Your task to perform on an android device: change the clock display to digital Image 0: 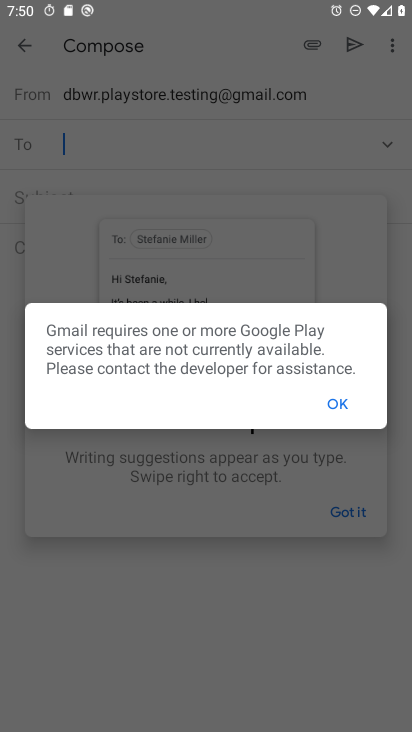
Step 0: press home button
Your task to perform on an android device: change the clock display to digital Image 1: 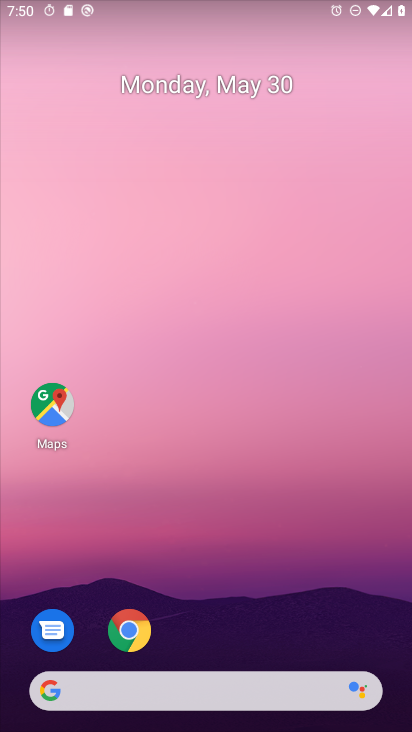
Step 1: drag from (343, 649) to (310, 333)
Your task to perform on an android device: change the clock display to digital Image 2: 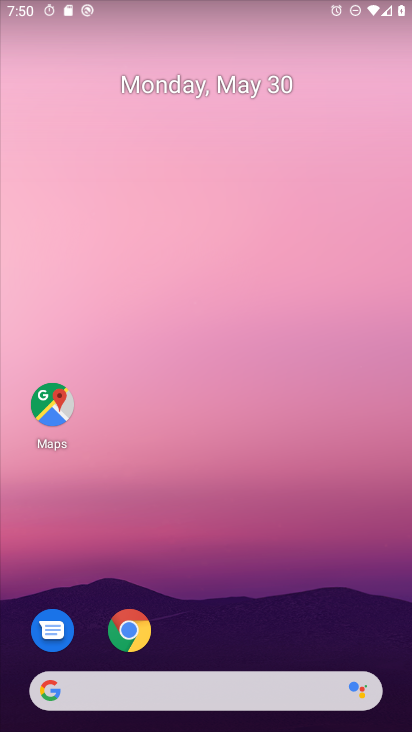
Step 2: drag from (329, 516) to (257, 137)
Your task to perform on an android device: change the clock display to digital Image 3: 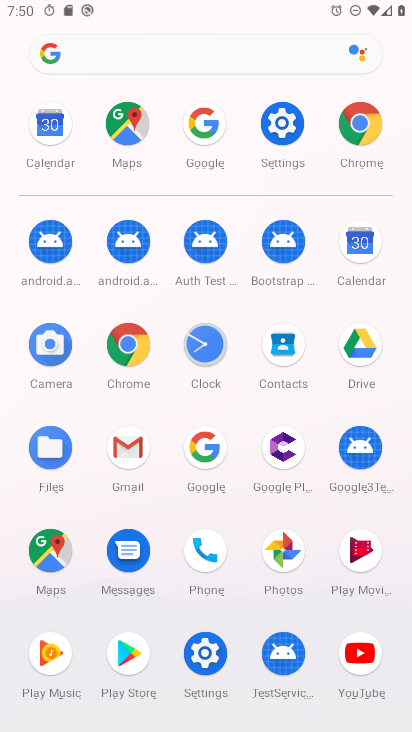
Step 3: click (218, 335)
Your task to perform on an android device: change the clock display to digital Image 4: 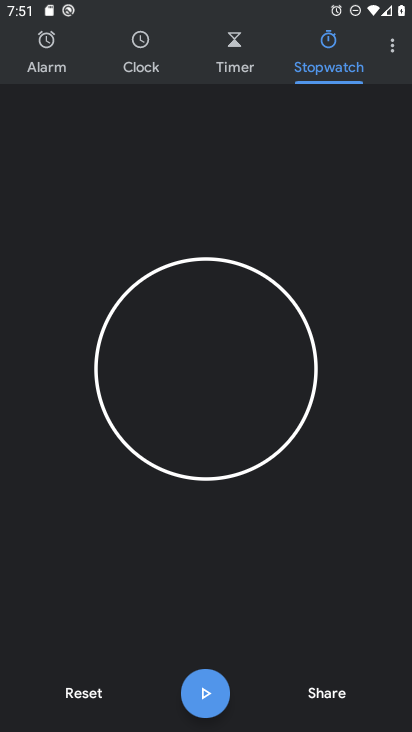
Step 4: click (393, 40)
Your task to perform on an android device: change the clock display to digital Image 5: 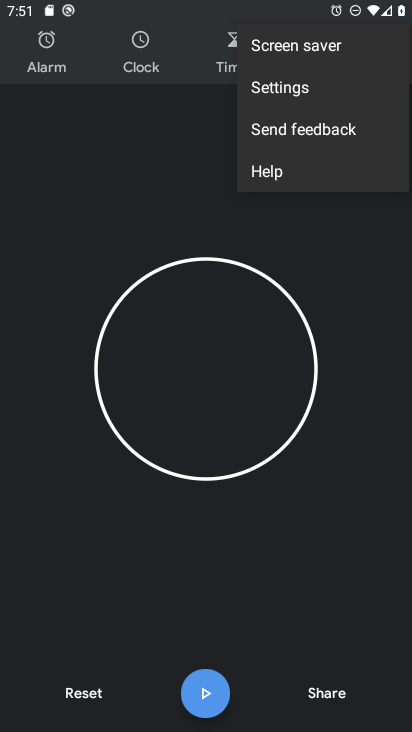
Step 5: click (365, 81)
Your task to perform on an android device: change the clock display to digital Image 6: 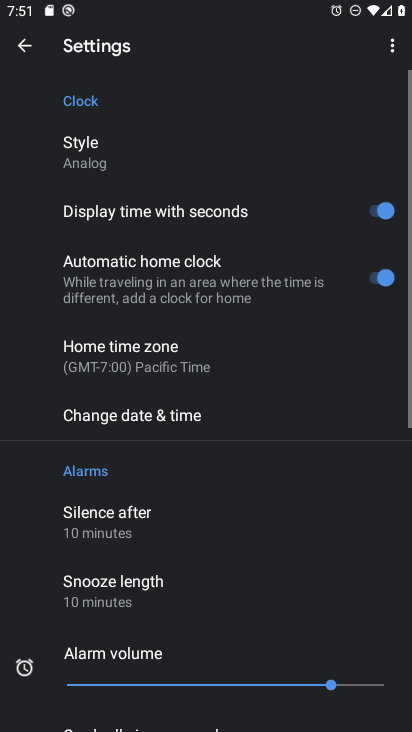
Step 6: click (331, 140)
Your task to perform on an android device: change the clock display to digital Image 7: 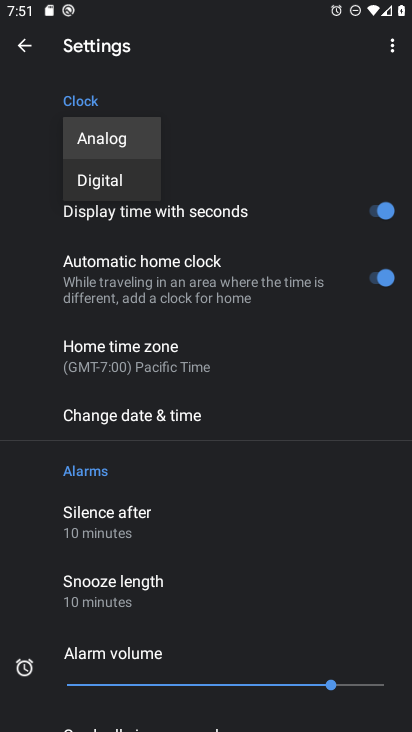
Step 7: click (103, 188)
Your task to perform on an android device: change the clock display to digital Image 8: 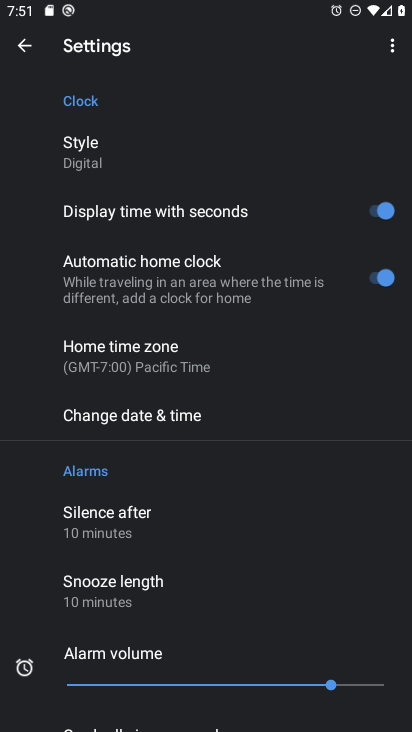
Step 8: task complete